Your task to perform on an android device: turn on airplane mode Image 0: 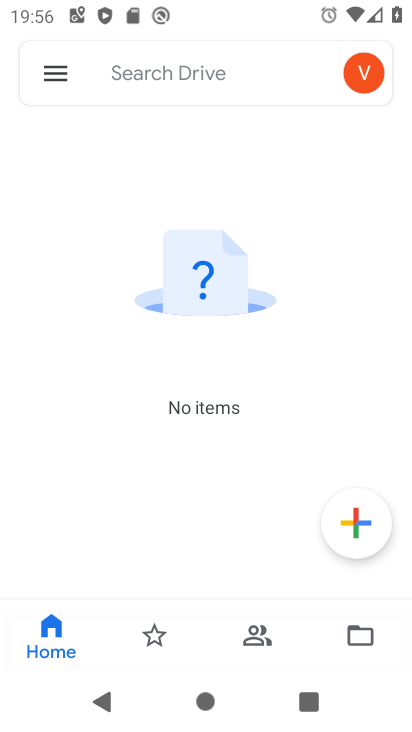
Step 0: press home button
Your task to perform on an android device: turn on airplane mode Image 1: 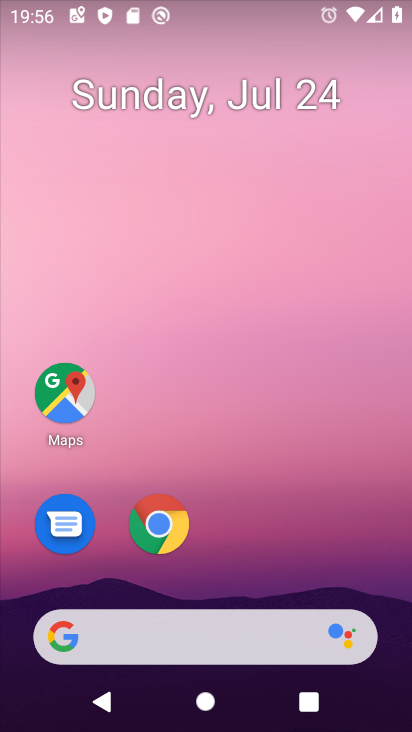
Step 1: drag from (283, 566) to (281, 22)
Your task to perform on an android device: turn on airplane mode Image 2: 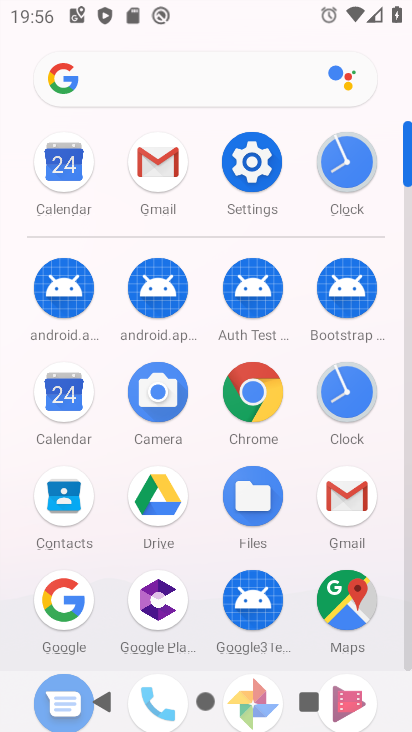
Step 2: click (258, 154)
Your task to perform on an android device: turn on airplane mode Image 3: 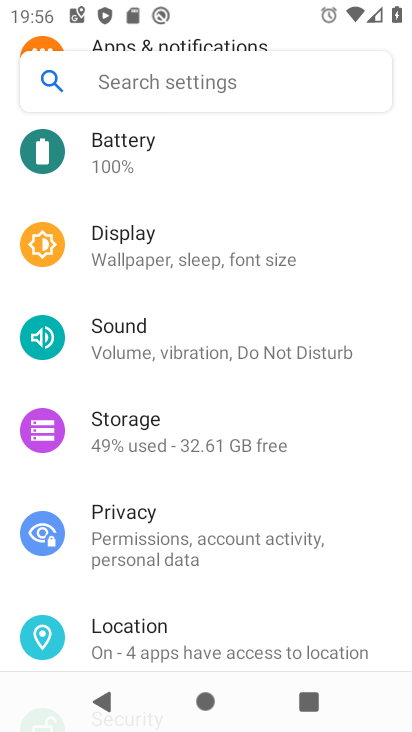
Step 3: drag from (249, 247) to (240, 556)
Your task to perform on an android device: turn on airplane mode Image 4: 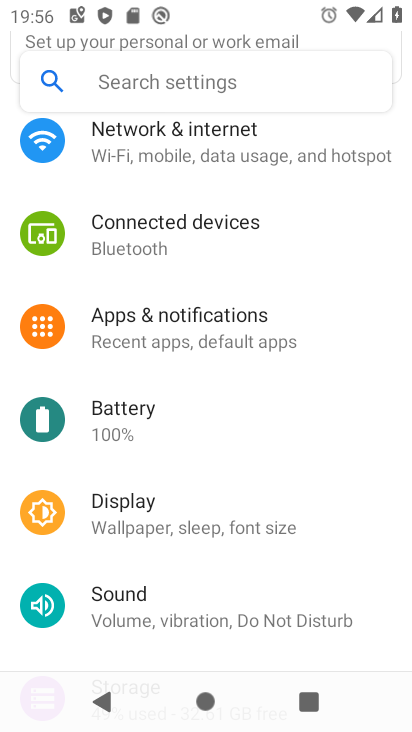
Step 4: drag from (253, 274) to (246, 574)
Your task to perform on an android device: turn on airplane mode Image 5: 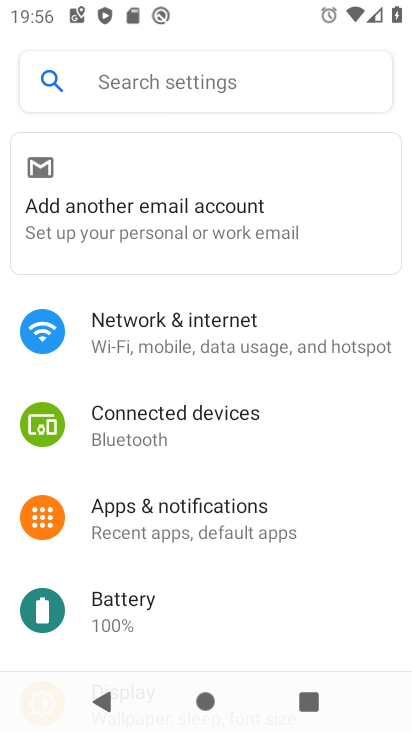
Step 5: click (252, 335)
Your task to perform on an android device: turn on airplane mode Image 6: 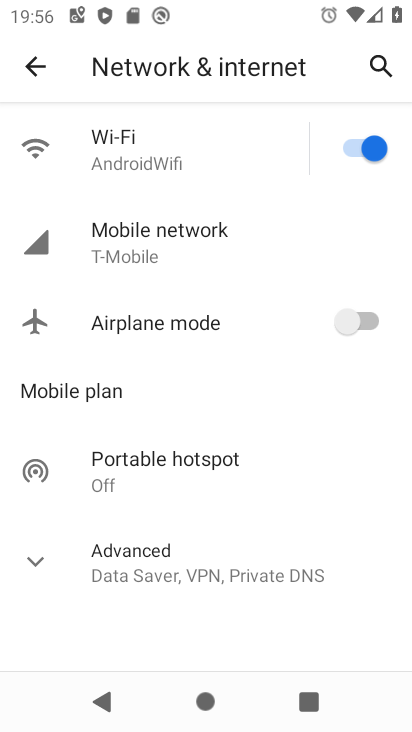
Step 6: click (356, 316)
Your task to perform on an android device: turn on airplane mode Image 7: 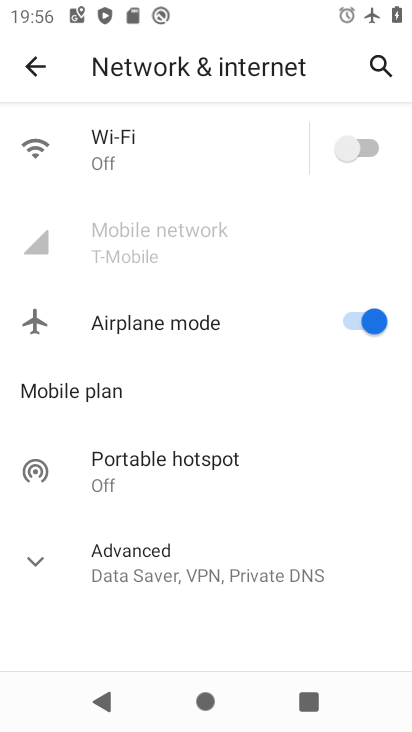
Step 7: task complete